Your task to perform on an android device: empty trash in google photos Image 0: 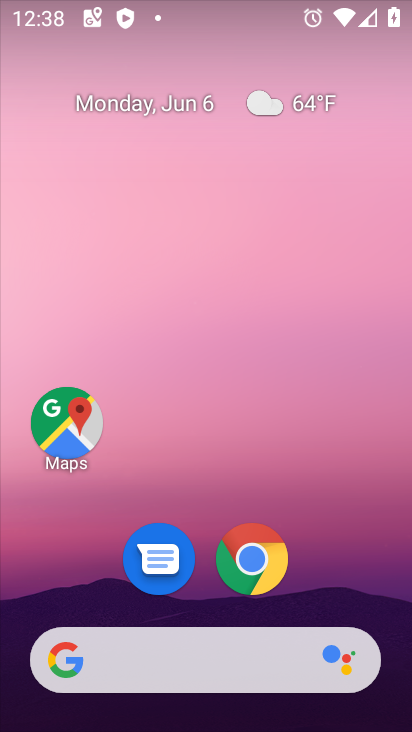
Step 0: drag from (263, 700) to (274, 245)
Your task to perform on an android device: empty trash in google photos Image 1: 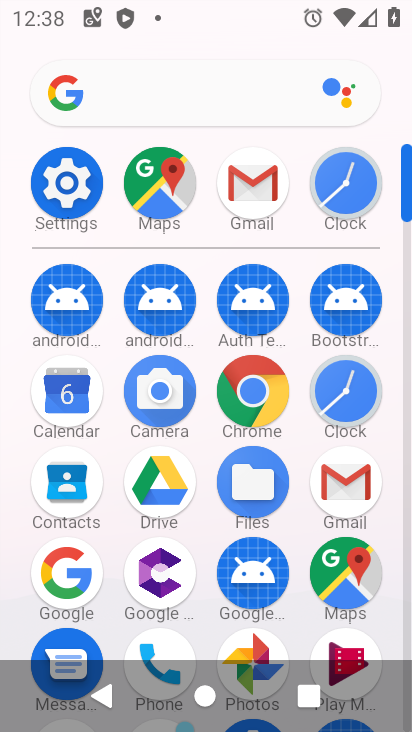
Step 1: click (262, 639)
Your task to perform on an android device: empty trash in google photos Image 2: 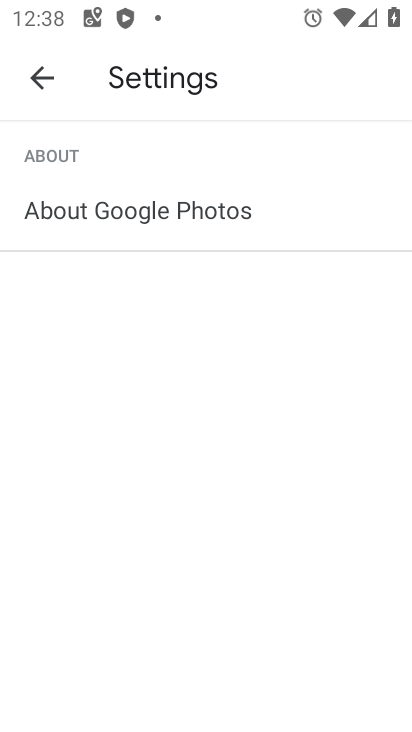
Step 2: click (49, 71)
Your task to perform on an android device: empty trash in google photos Image 3: 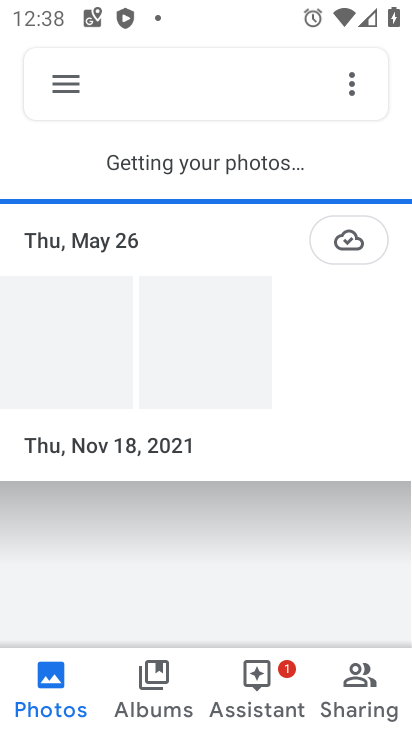
Step 3: click (51, 79)
Your task to perform on an android device: empty trash in google photos Image 4: 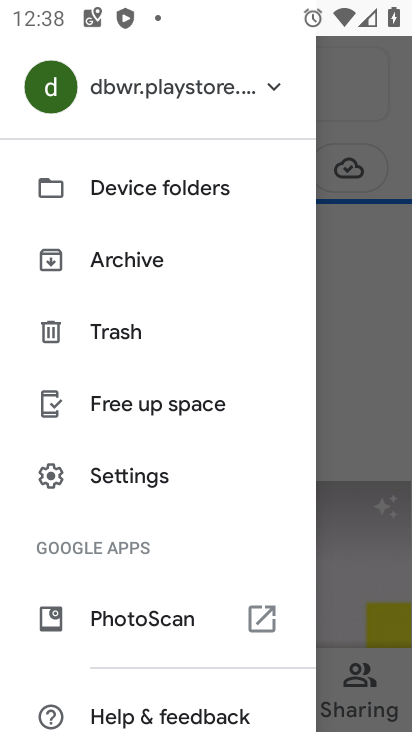
Step 4: click (130, 328)
Your task to perform on an android device: empty trash in google photos Image 5: 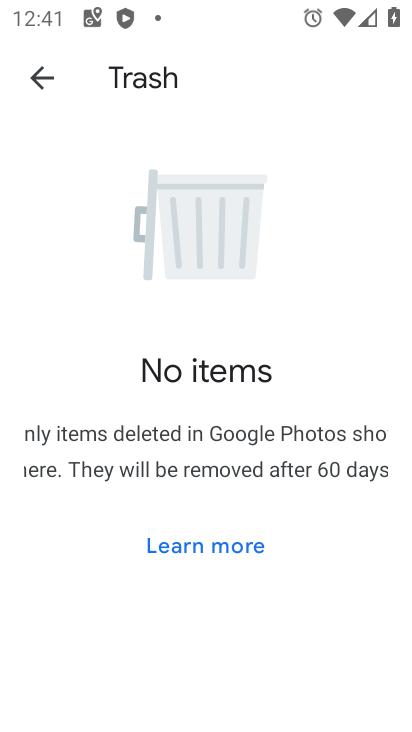
Step 5: task complete